Your task to perform on an android device: toggle pop-ups in chrome Image 0: 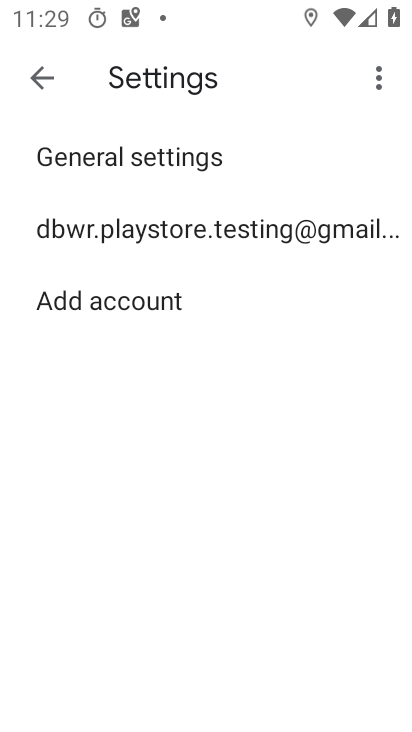
Step 0: drag from (341, 578) to (322, 442)
Your task to perform on an android device: toggle pop-ups in chrome Image 1: 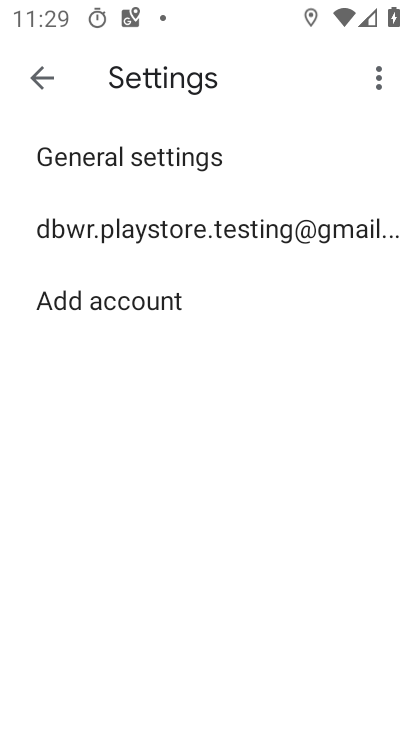
Step 1: press home button
Your task to perform on an android device: toggle pop-ups in chrome Image 2: 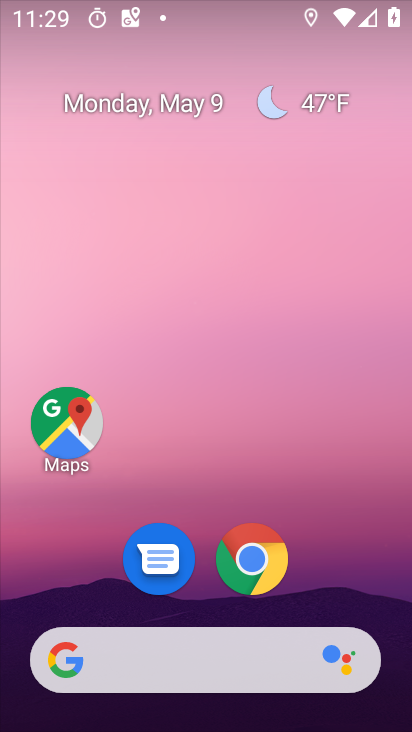
Step 2: click (242, 605)
Your task to perform on an android device: toggle pop-ups in chrome Image 3: 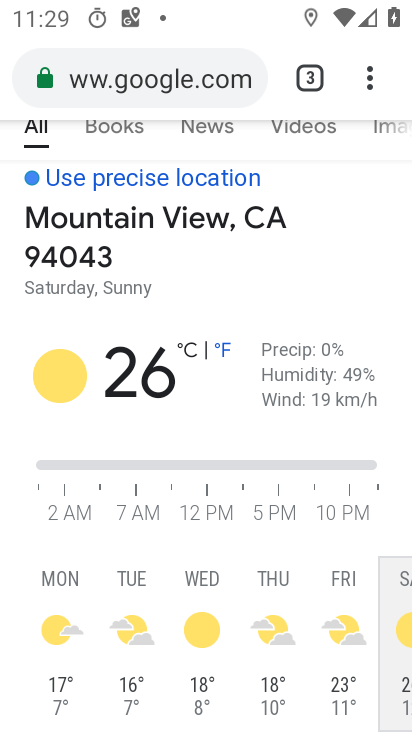
Step 3: drag from (365, 81) to (112, 638)
Your task to perform on an android device: toggle pop-ups in chrome Image 4: 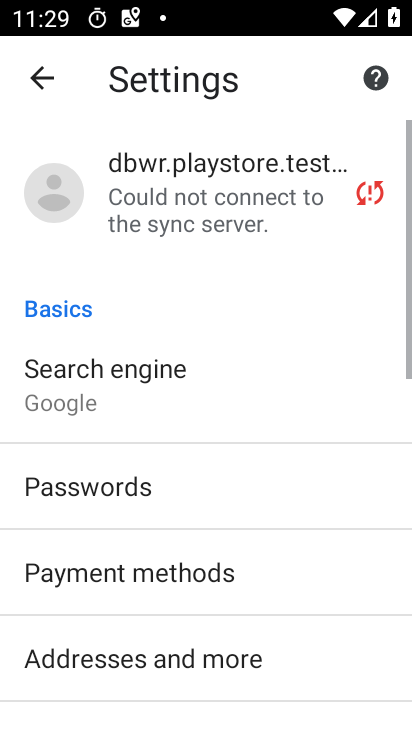
Step 4: drag from (193, 653) to (192, 315)
Your task to perform on an android device: toggle pop-ups in chrome Image 5: 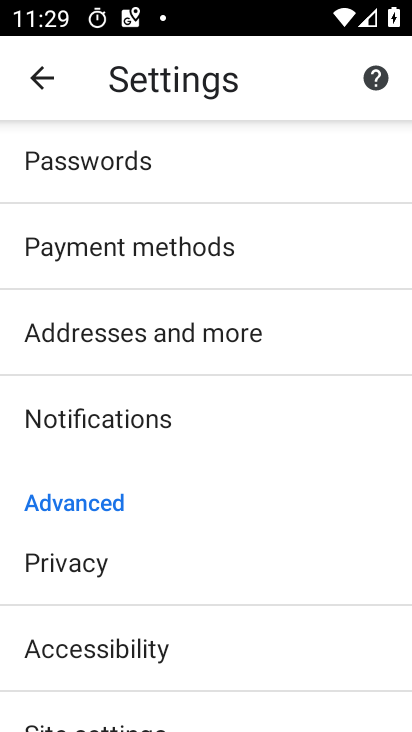
Step 5: drag from (217, 708) to (209, 421)
Your task to perform on an android device: toggle pop-ups in chrome Image 6: 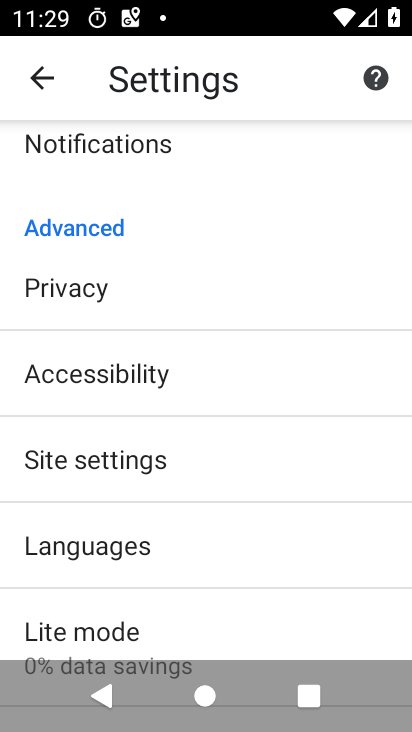
Step 6: click (161, 450)
Your task to perform on an android device: toggle pop-ups in chrome Image 7: 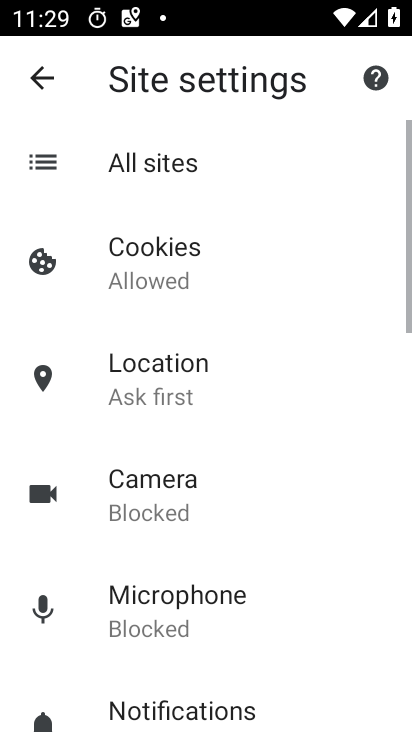
Step 7: drag from (206, 596) to (209, 167)
Your task to perform on an android device: toggle pop-ups in chrome Image 8: 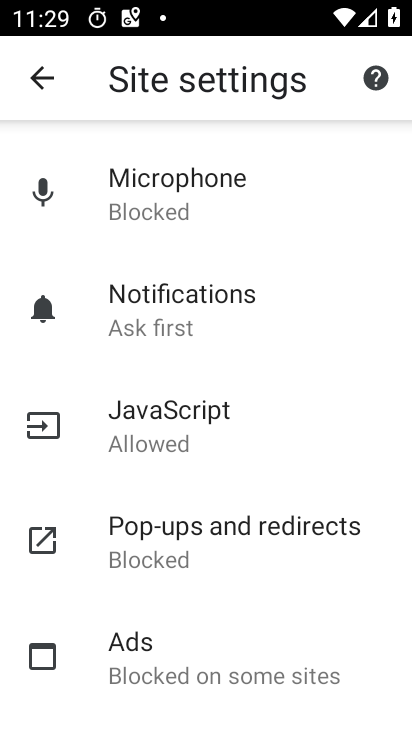
Step 8: click (206, 520)
Your task to perform on an android device: toggle pop-ups in chrome Image 9: 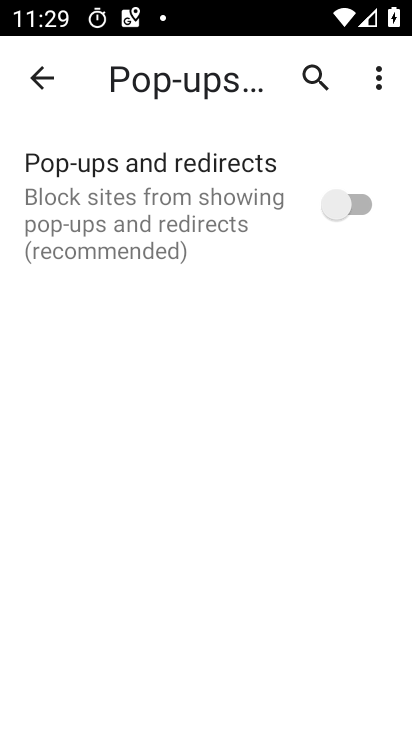
Step 9: click (299, 181)
Your task to perform on an android device: toggle pop-ups in chrome Image 10: 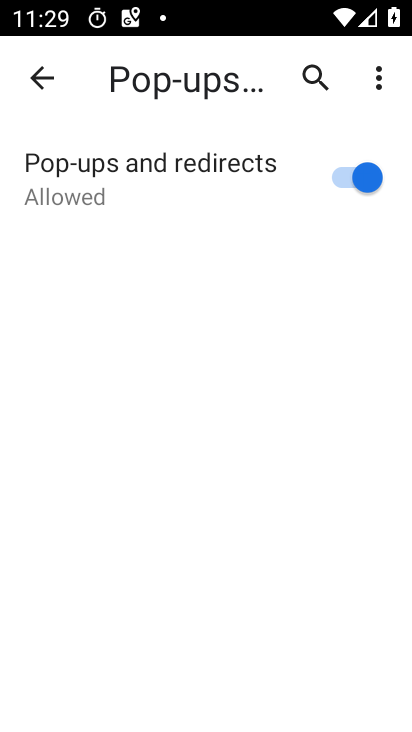
Step 10: task complete